Your task to perform on an android device: Set the phone to "Do not disturb". Image 0: 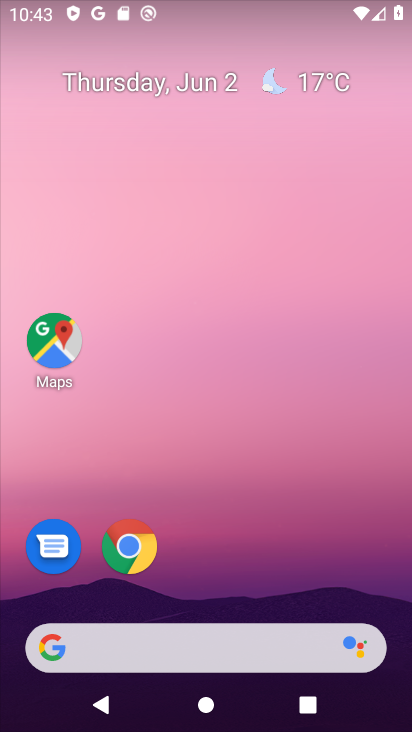
Step 0: drag from (227, 131) to (209, 26)
Your task to perform on an android device: Set the phone to "Do not disturb". Image 1: 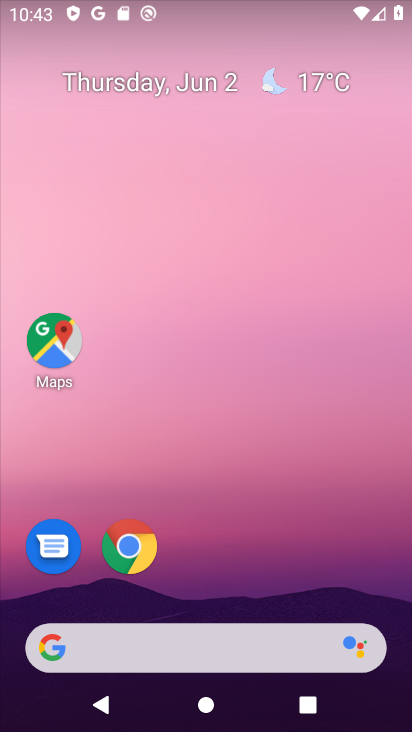
Step 1: drag from (223, 227) to (207, 19)
Your task to perform on an android device: Set the phone to "Do not disturb". Image 2: 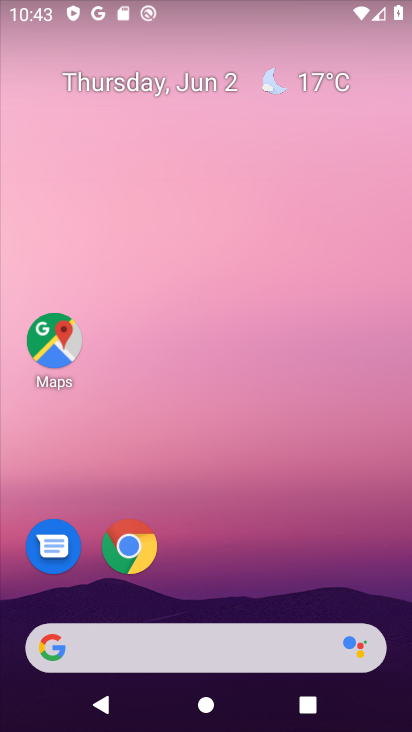
Step 2: drag from (332, 484) to (189, 13)
Your task to perform on an android device: Set the phone to "Do not disturb". Image 3: 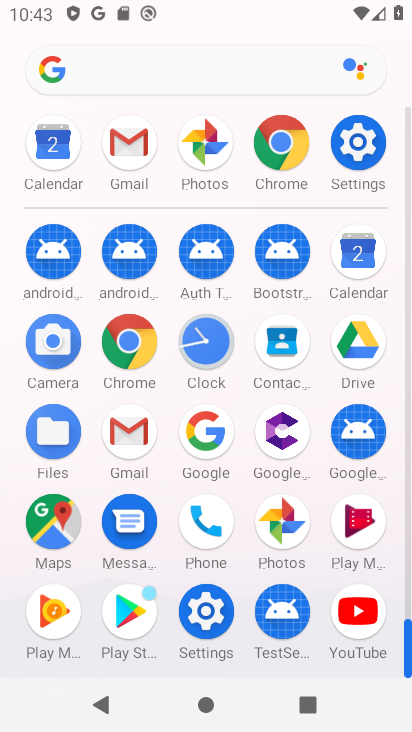
Step 3: drag from (14, 531) to (16, 195)
Your task to perform on an android device: Set the phone to "Do not disturb". Image 4: 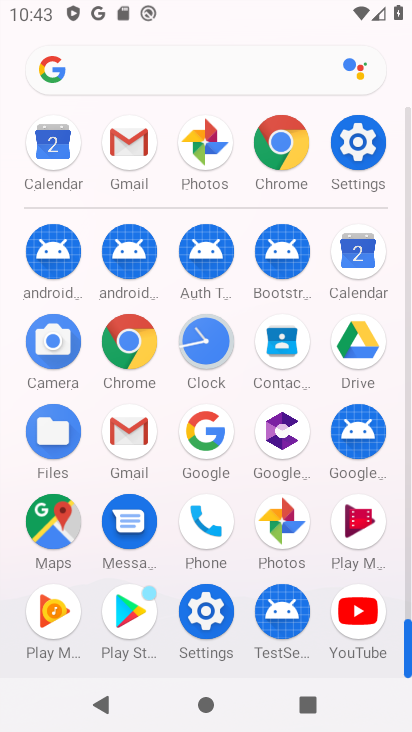
Step 4: click (206, 609)
Your task to perform on an android device: Set the phone to "Do not disturb". Image 5: 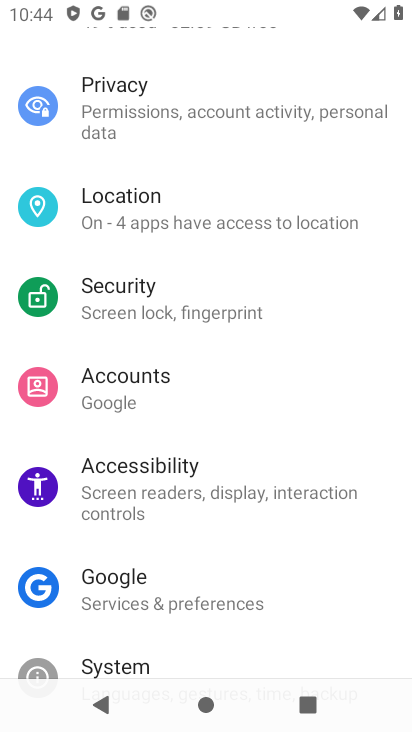
Step 5: drag from (290, 138) to (289, 550)
Your task to perform on an android device: Set the phone to "Do not disturb". Image 6: 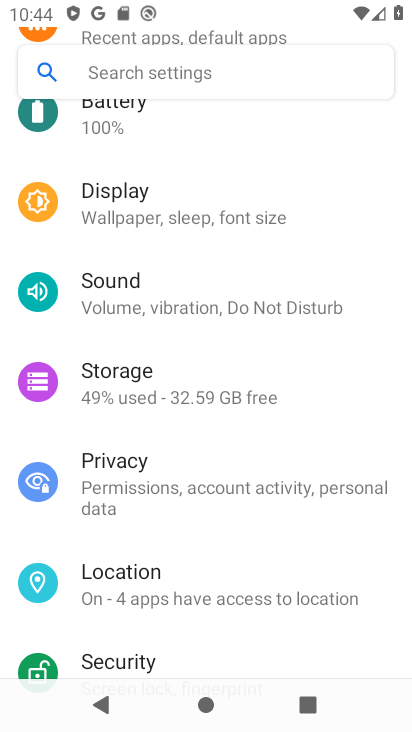
Step 6: click (267, 252)
Your task to perform on an android device: Set the phone to "Do not disturb". Image 7: 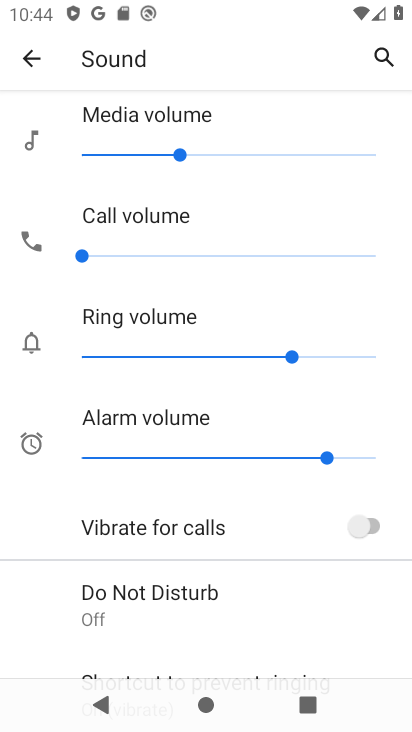
Step 7: drag from (246, 552) to (245, 144)
Your task to perform on an android device: Set the phone to "Do not disturb". Image 8: 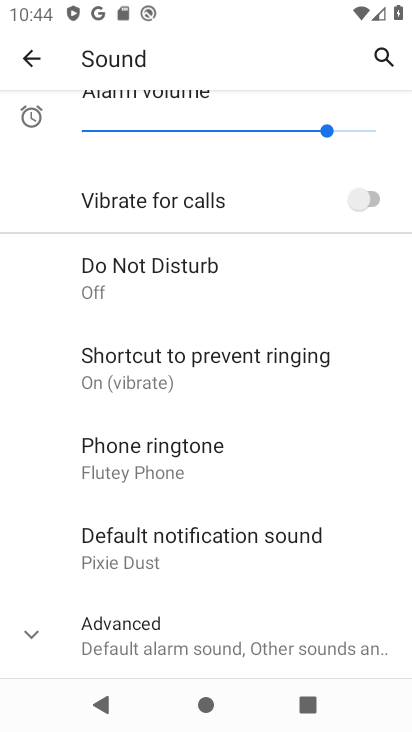
Step 8: click (180, 279)
Your task to perform on an android device: Set the phone to "Do not disturb". Image 9: 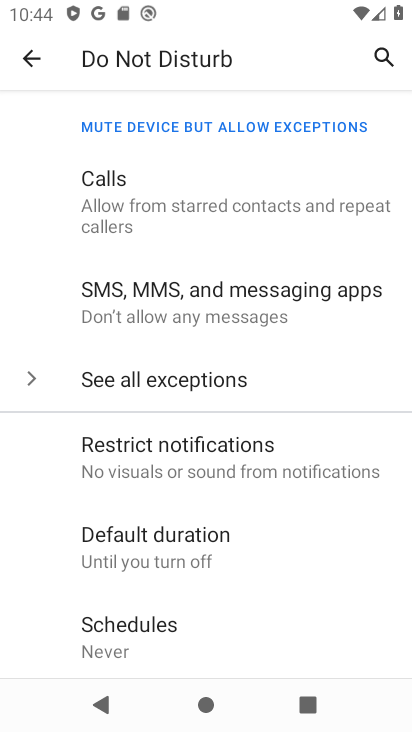
Step 9: drag from (263, 200) to (269, 586)
Your task to perform on an android device: Set the phone to "Do not disturb". Image 10: 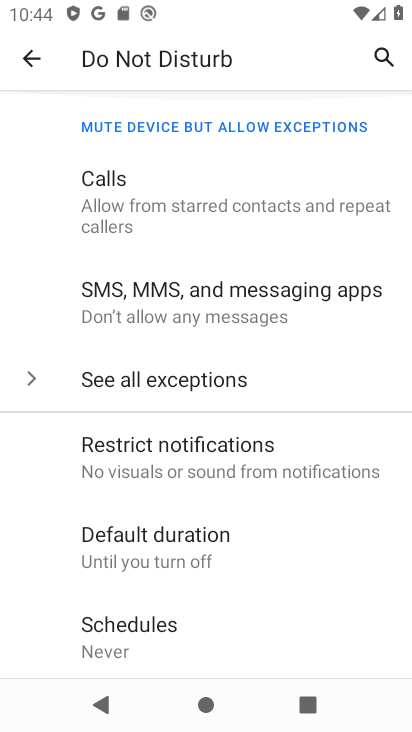
Step 10: drag from (230, 523) to (252, 148)
Your task to perform on an android device: Set the phone to "Do not disturb". Image 11: 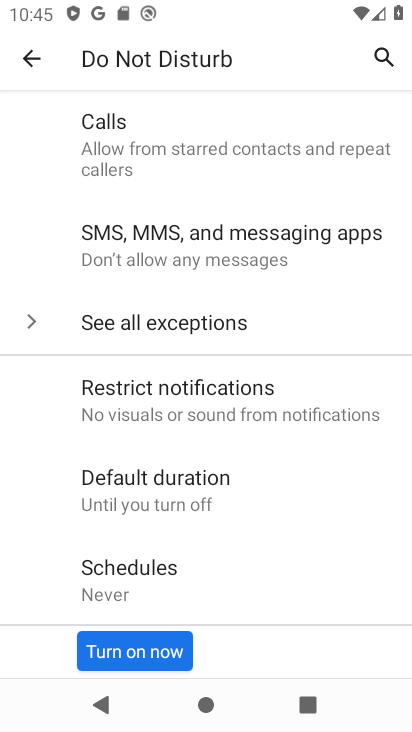
Step 11: click (161, 642)
Your task to perform on an android device: Set the phone to "Do not disturb". Image 12: 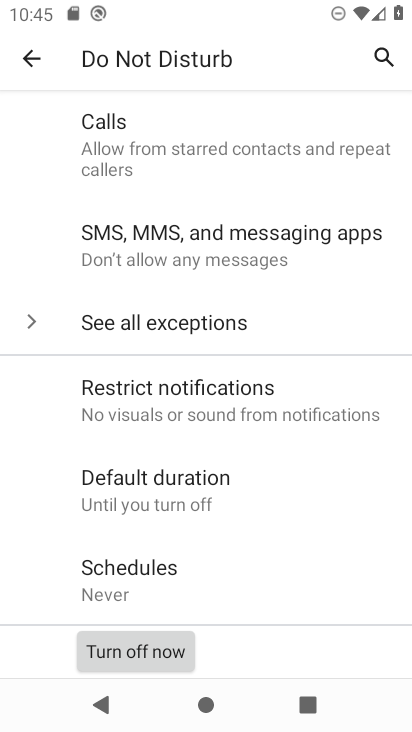
Step 12: task complete